Your task to perform on an android device: Open the map Image 0: 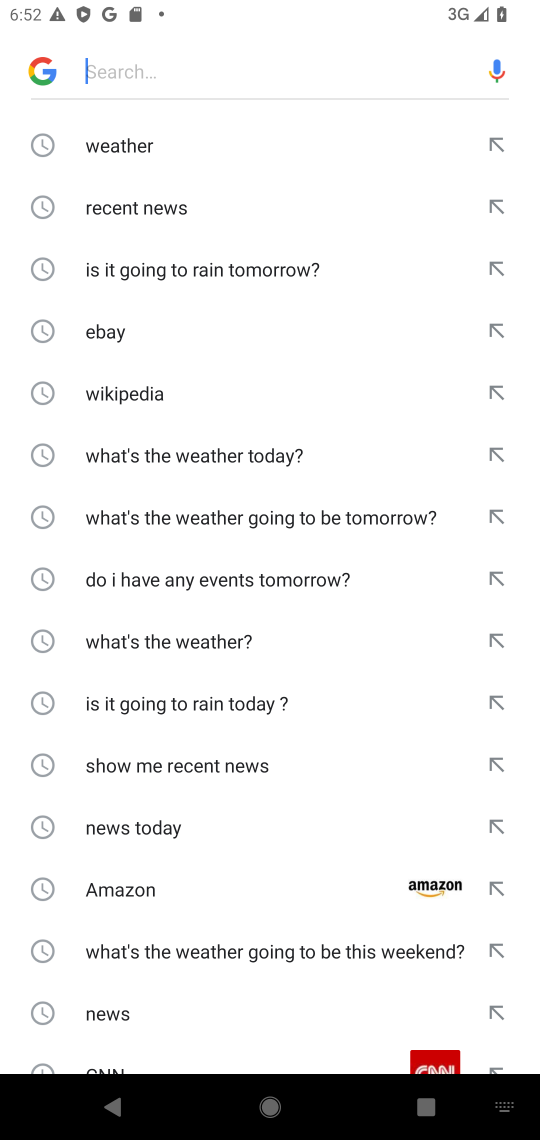
Step 0: press home button
Your task to perform on an android device: Open the map Image 1: 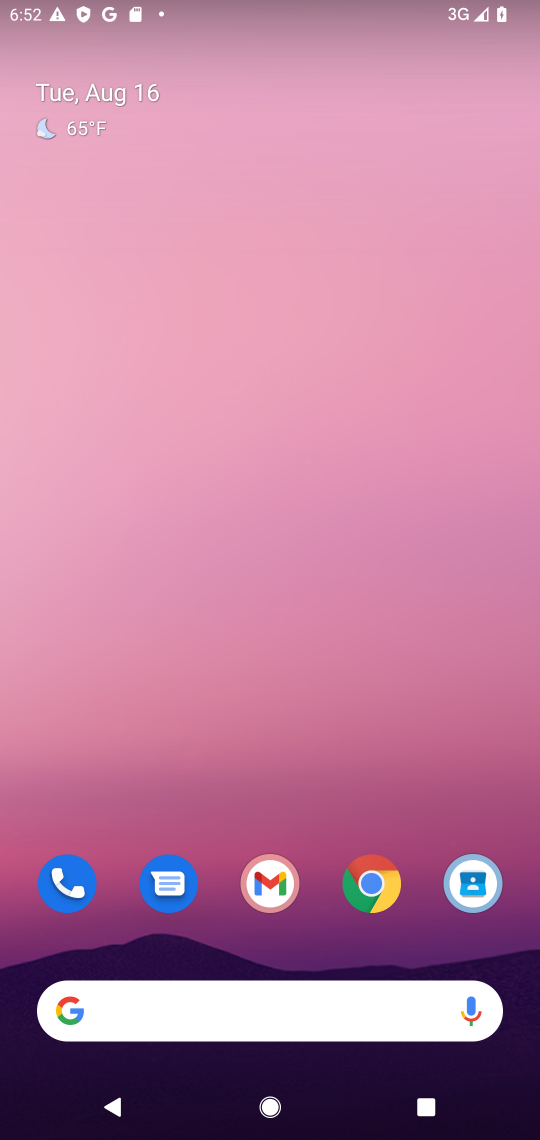
Step 1: drag from (202, 1010) to (322, 154)
Your task to perform on an android device: Open the map Image 2: 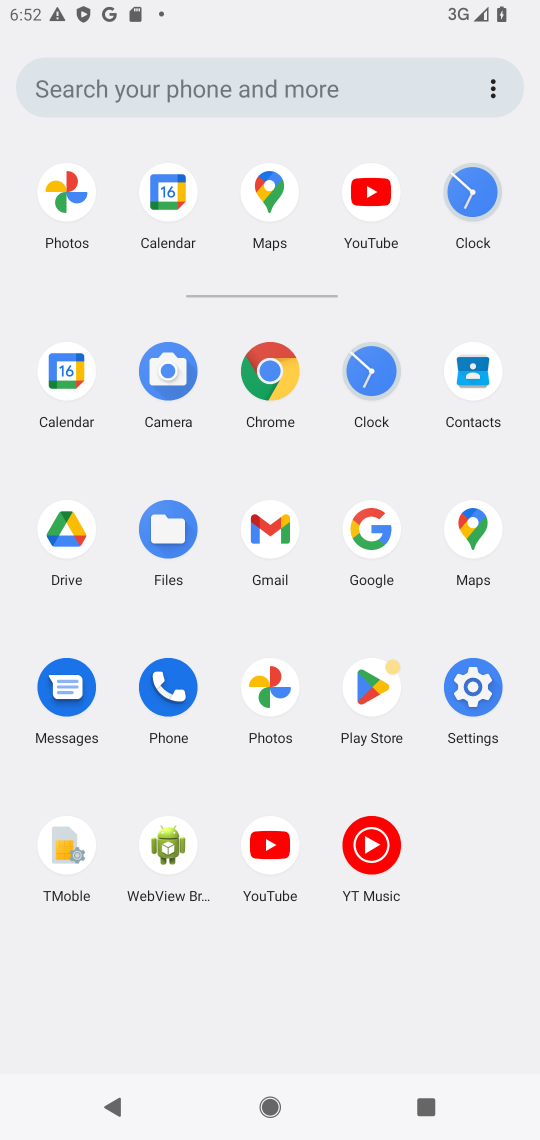
Step 2: click (475, 530)
Your task to perform on an android device: Open the map Image 3: 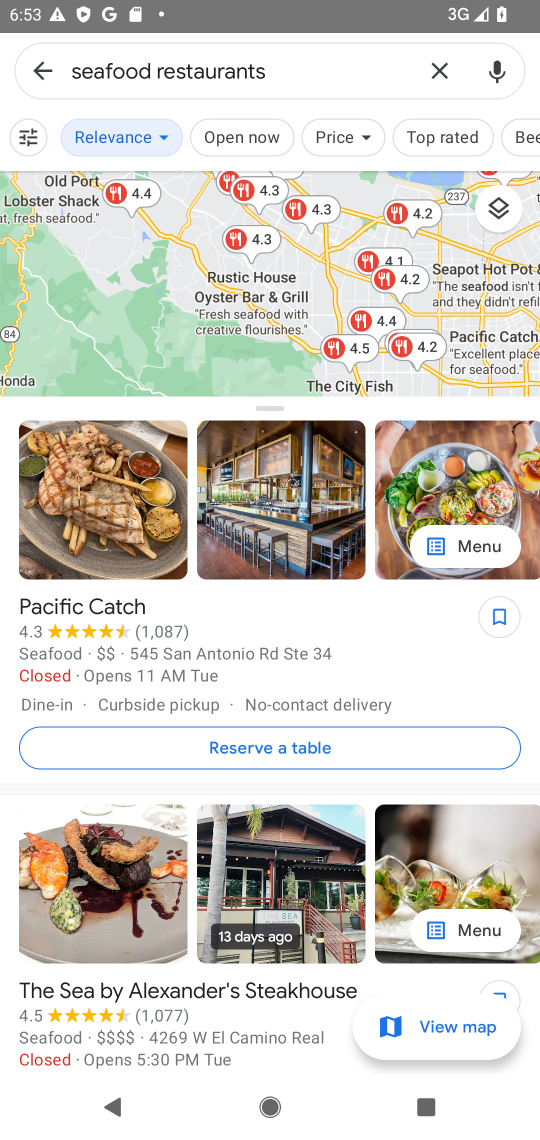
Step 3: task complete